Your task to perform on an android device: turn off wifi Image 0: 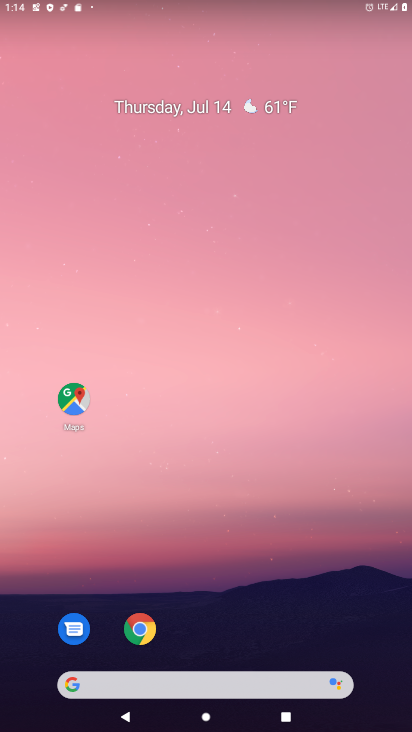
Step 0: drag from (247, 535) to (197, 194)
Your task to perform on an android device: turn off wifi Image 1: 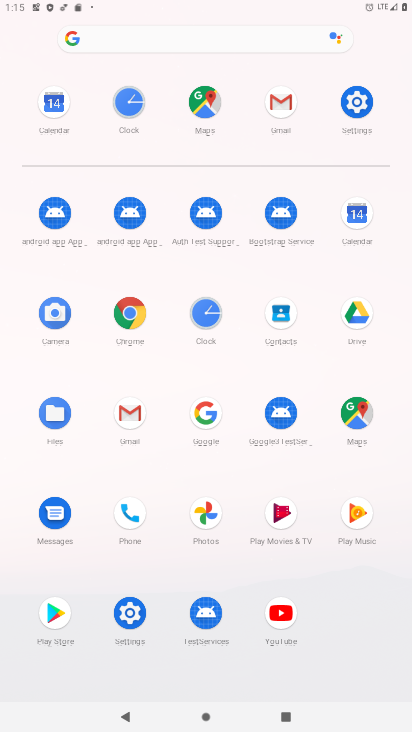
Step 1: click (354, 104)
Your task to perform on an android device: turn off wifi Image 2: 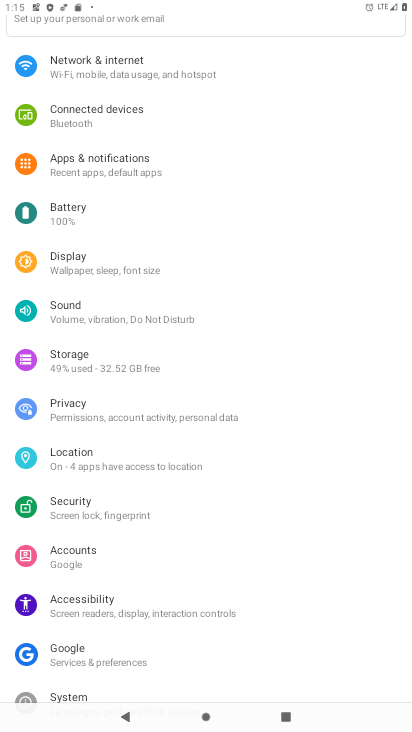
Step 2: click (82, 60)
Your task to perform on an android device: turn off wifi Image 3: 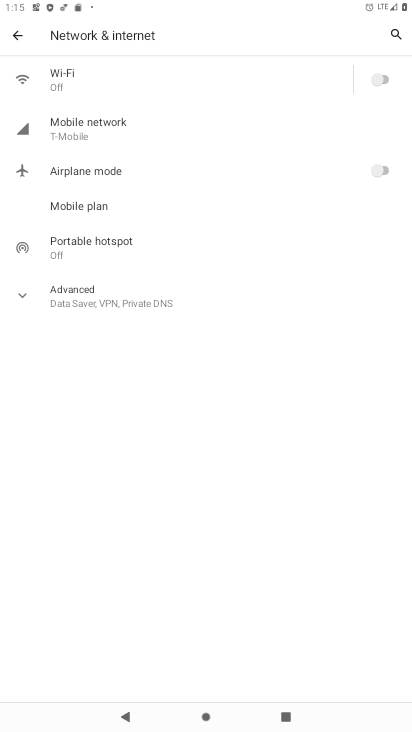
Step 3: task complete